Your task to perform on an android device: open app "NewsBreak: Local News & Alerts" (install if not already installed) and go to login screen Image 0: 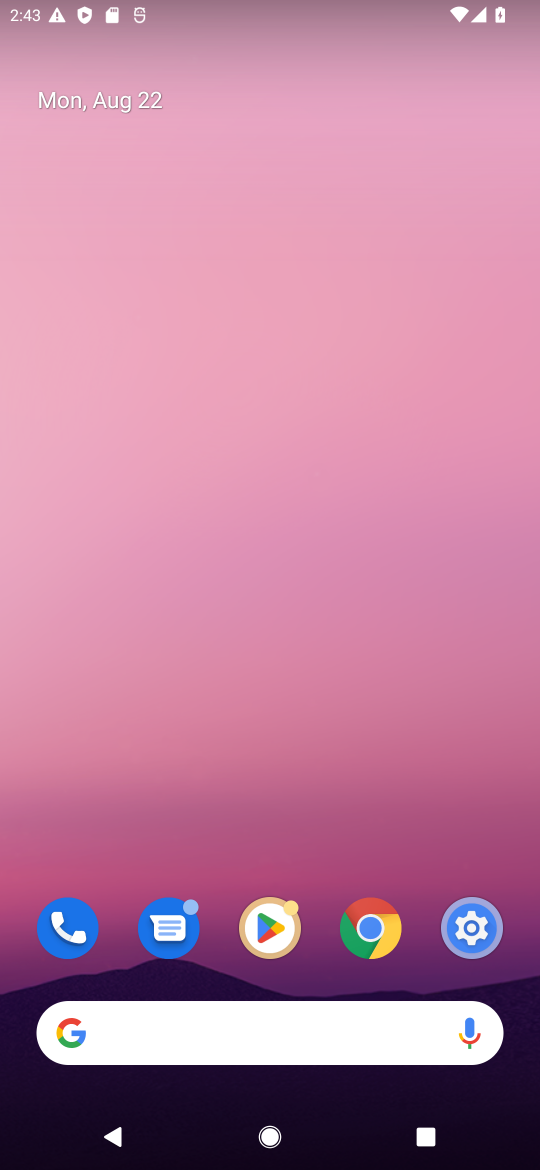
Step 0: click (288, 929)
Your task to perform on an android device: open app "NewsBreak: Local News & Alerts" (install if not already installed) and go to login screen Image 1: 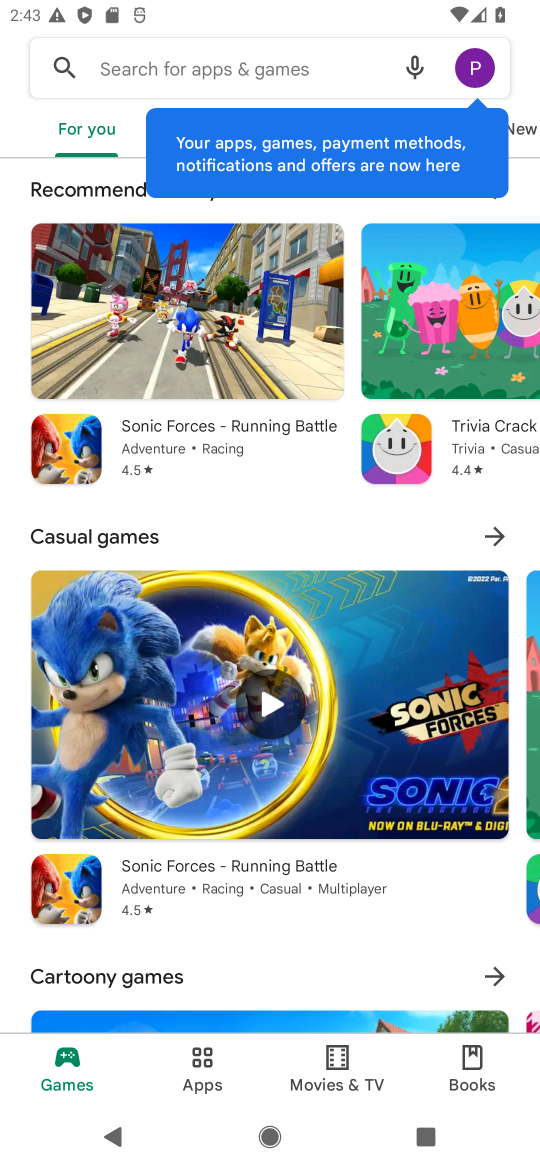
Step 1: click (223, 72)
Your task to perform on an android device: open app "NewsBreak: Local News & Alerts" (install if not already installed) and go to login screen Image 2: 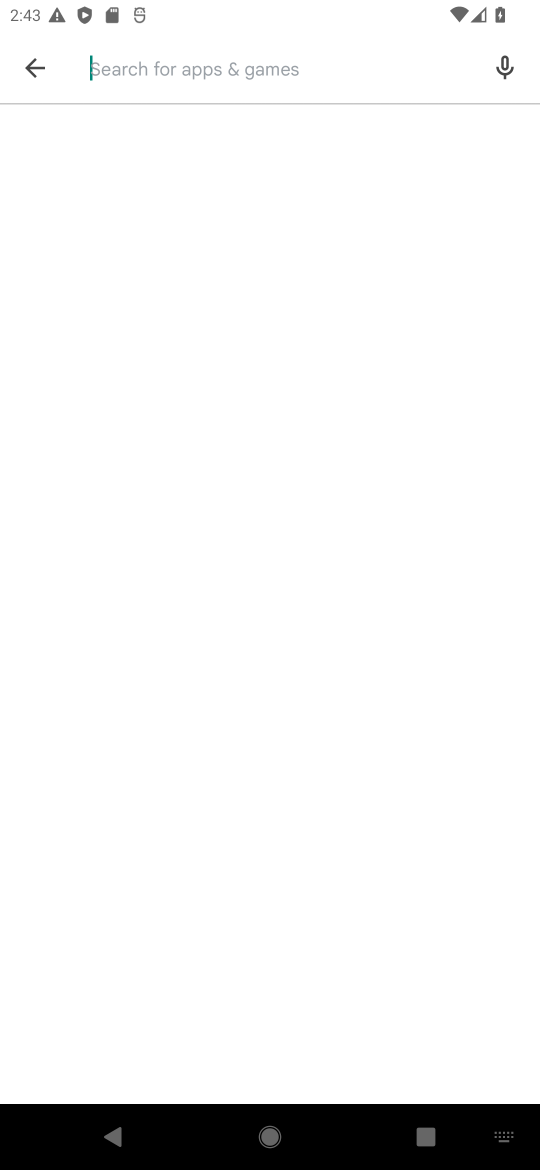
Step 2: type "newsbreak"
Your task to perform on an android device: open app "NewsBreak: Local News & Alerts" (install if not already installed) and go to login screen Image 3: 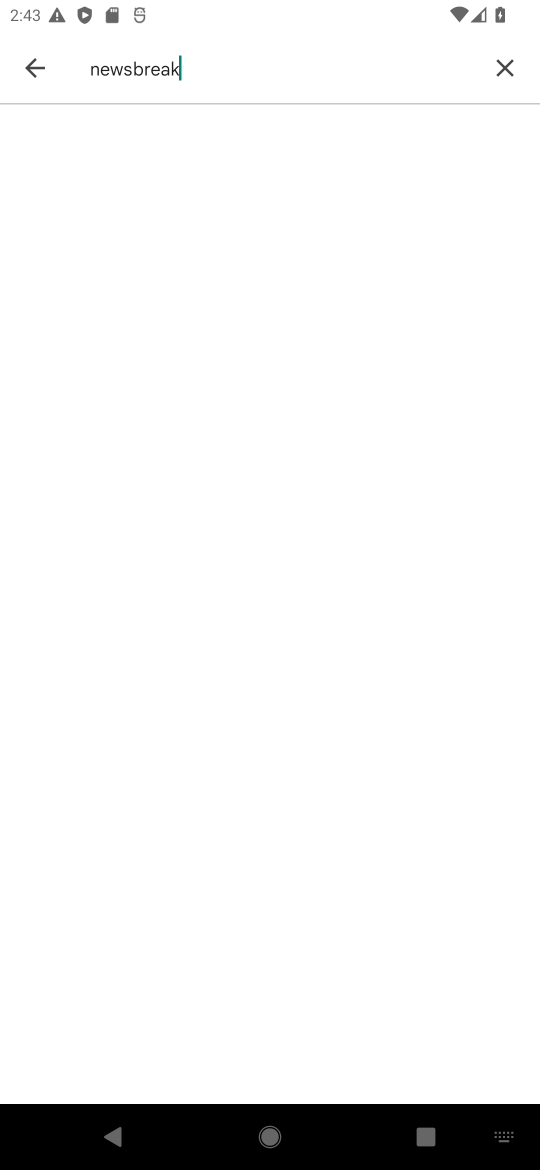
Step 3: click (149, 190)
Your task to perform on an android device: open app "NewsBreak: Local News & Alerts" (install if not already installed) and go to login screen Image 4: 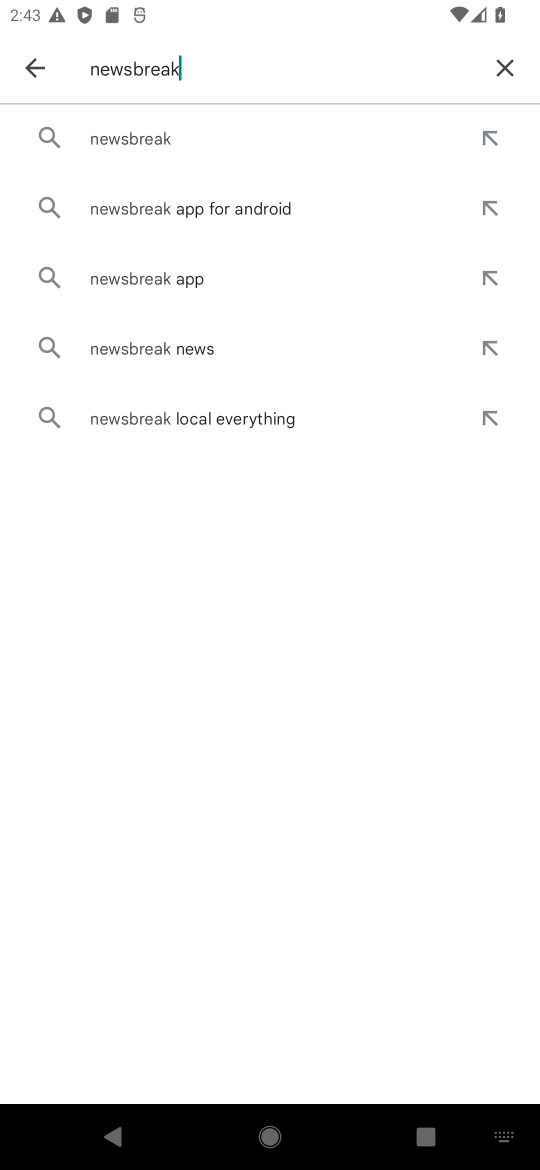
Step 4: drag from (154, 174) to (165, 966)
Your task to perform on an android device: open app "NewsBreak: Local News & Alerts" (install if not already installed) and go to login screen Image 5: 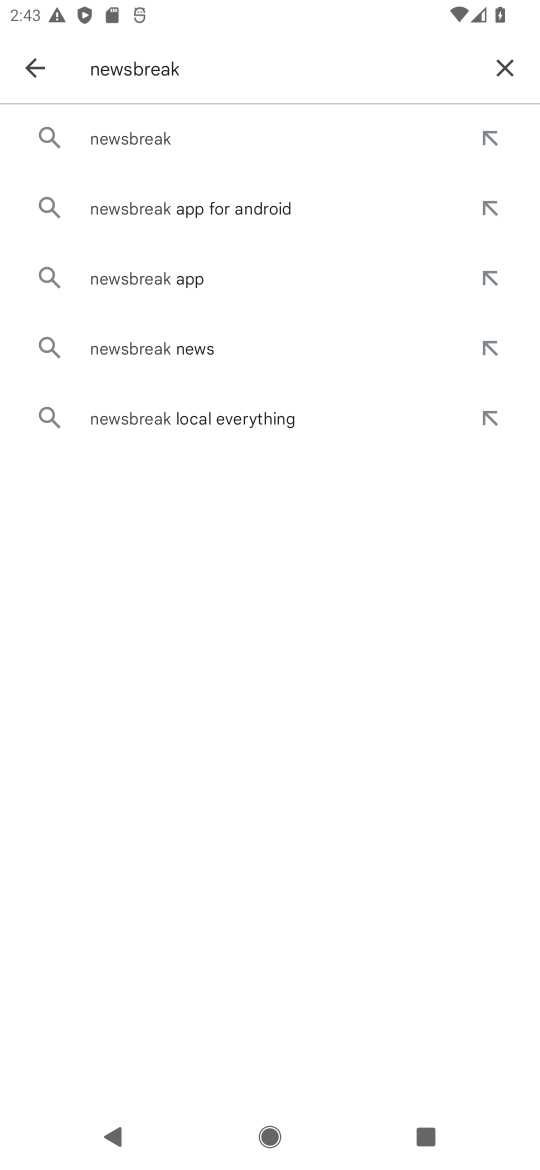
Step 5: click (129, 149)
Your task to perform on an android device: open app "NewsBreak: Local News & Alerts" (install if not already installed) and go to login screen Image 6: 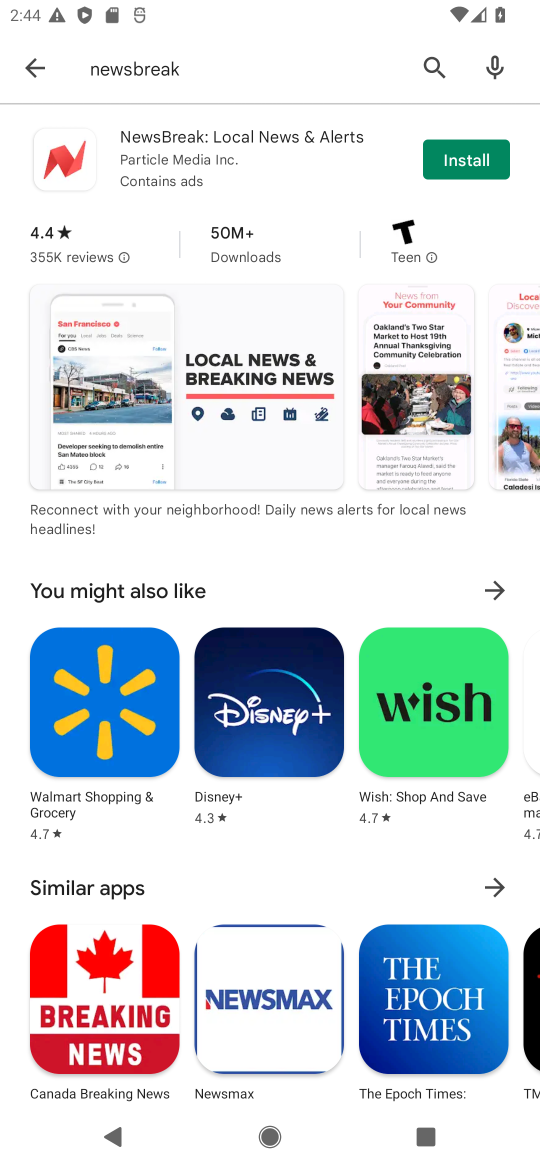
Step 6: click (480, 164)
Your task to perform on an android device: open app "NewsBreak: Local News & Alerts" (install if not already installed) and go to login screen Image 7: 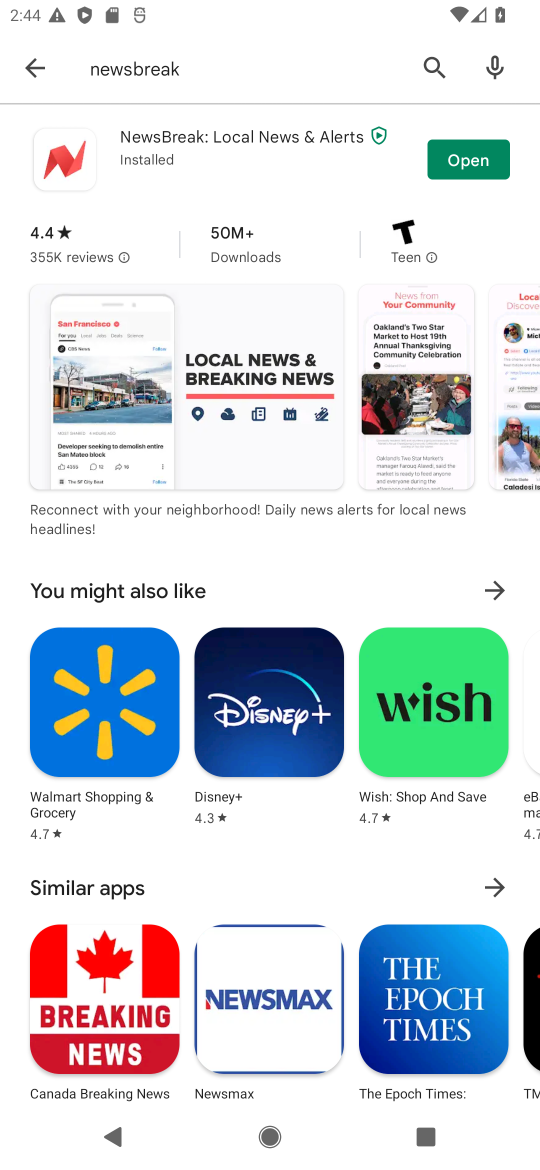
Step 7: click (475, 157)
Your task to perform on an android device: open app "NewsBreak: Local News & Alerts" (install if not already installed) and go to login screen Image 8: 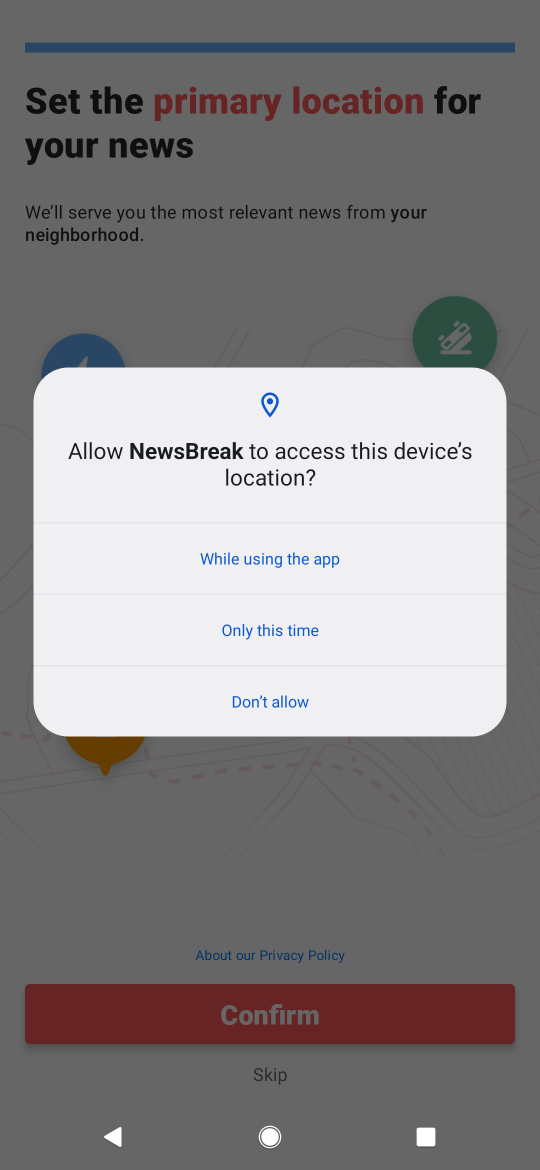
Step 8: click (321, 566)
Your task to perform on an android device: open app "NewsBreak: Local News & Alerts" (install if not already installed) and go to login screen Image 9: 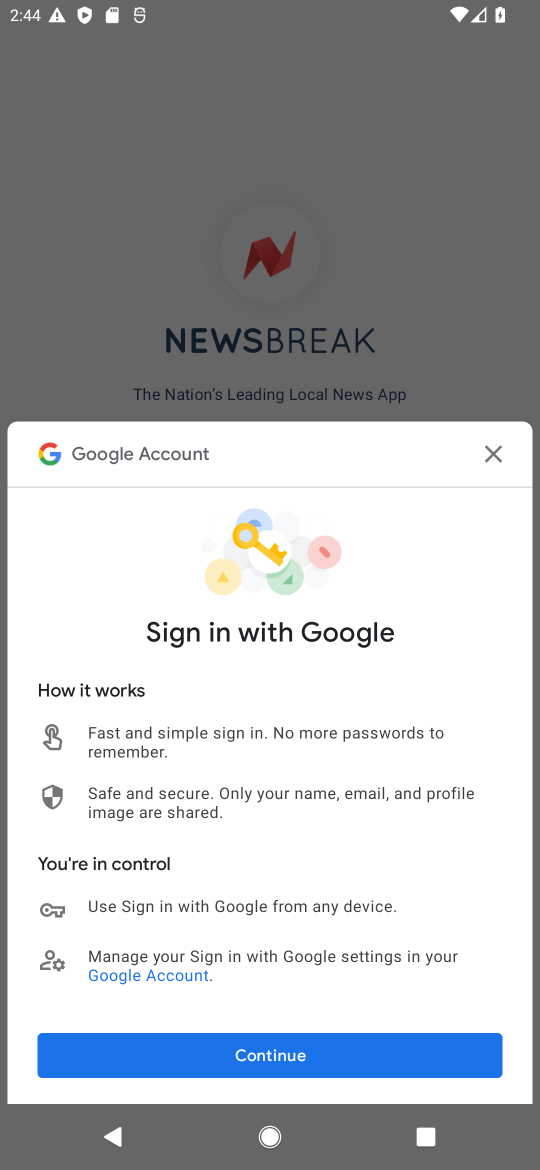
Step 9: click (279, 1056)
Your task to perform on an android device: open app "NewsBreak: Local News & Alerts" (install if not already installed) and go to login screen Image 10: 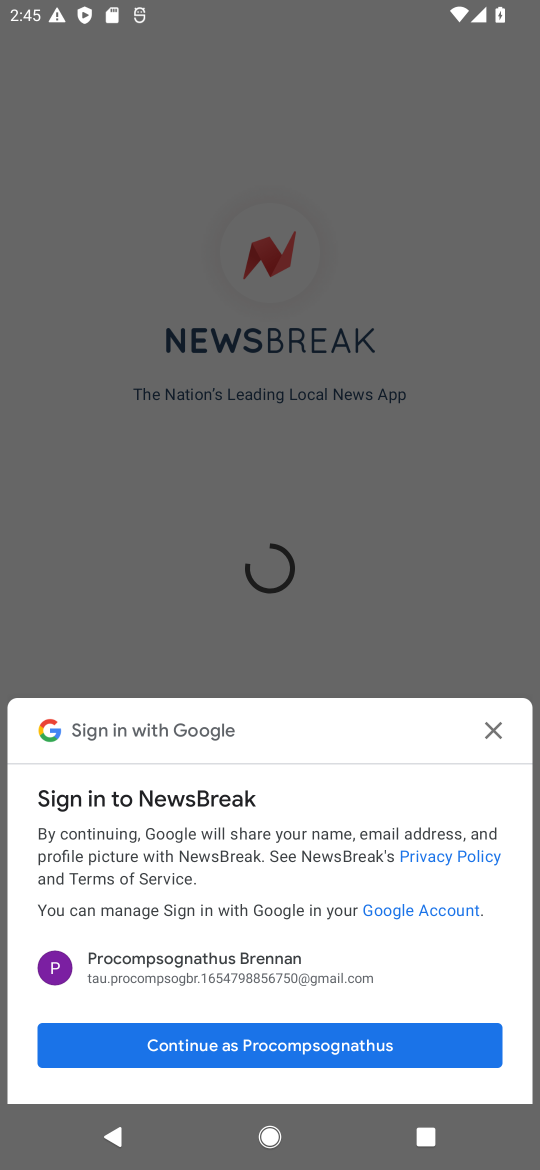
Step 10: click (308, 1054)
Your task to perform on an android device: open app "NewsBreak: Local News & Alerts" (install if not already installed) and go to login screen Image 11: 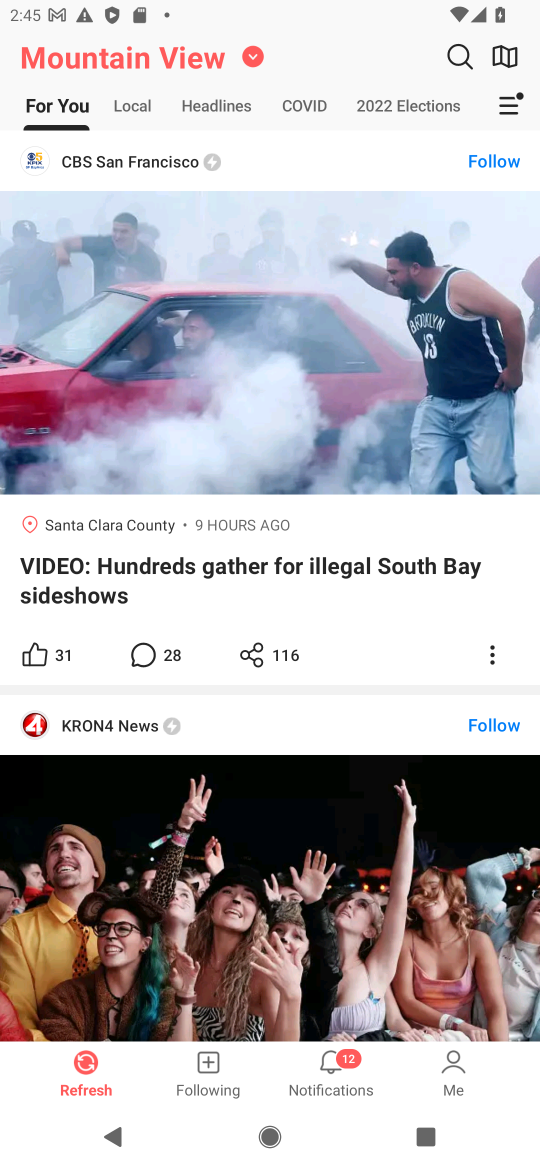
Step 11: click (454, 1066)
Your task to perform on an android device: open app "NewsBreak: Local News & Alerts" (install if not already installed) and go to login screen Image 12: 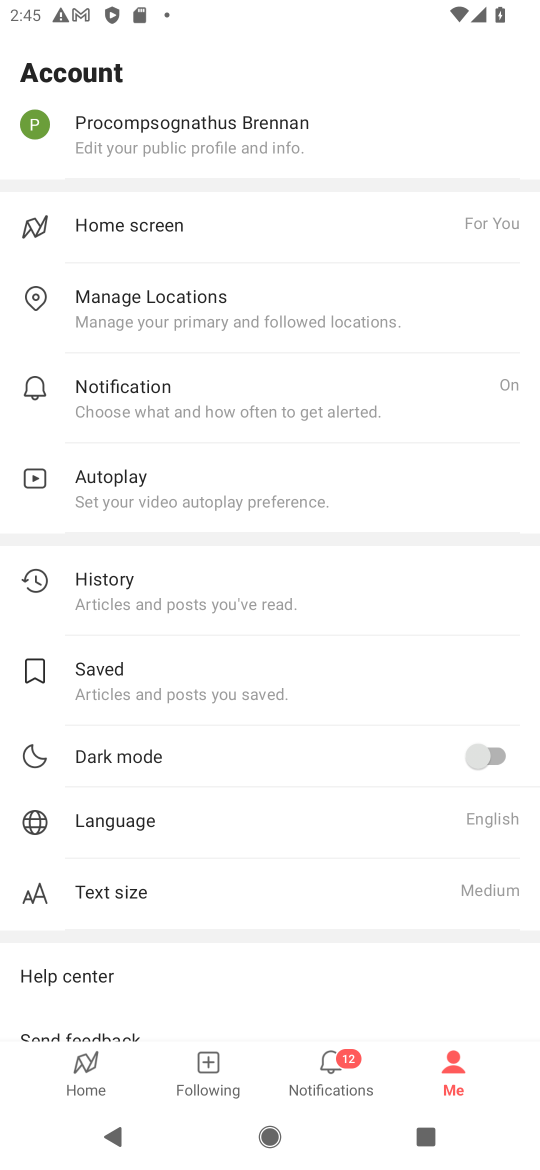
Step 12: click (214, 129)
Your task to perform on an android device: open app "NewsBreak: Local News & Alerts" (install if not already installed) and go to login screen Image 13: 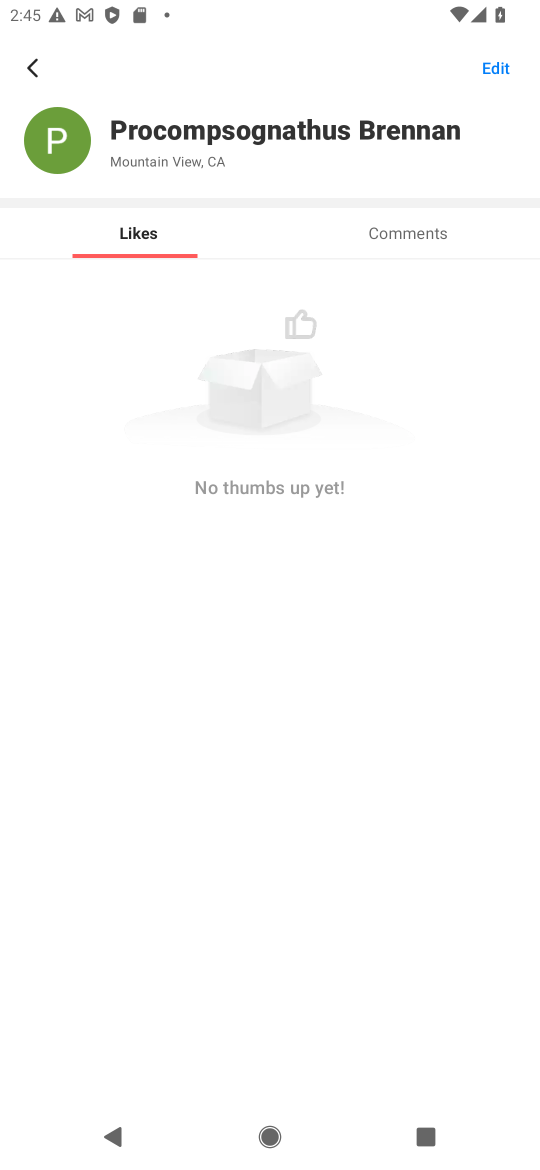
Step 13: click (259, 138)
Your task to perform on an android device: open app "NewsBreak: Local News & Alerts" (install if not already installed) and go to login screen Image 14: 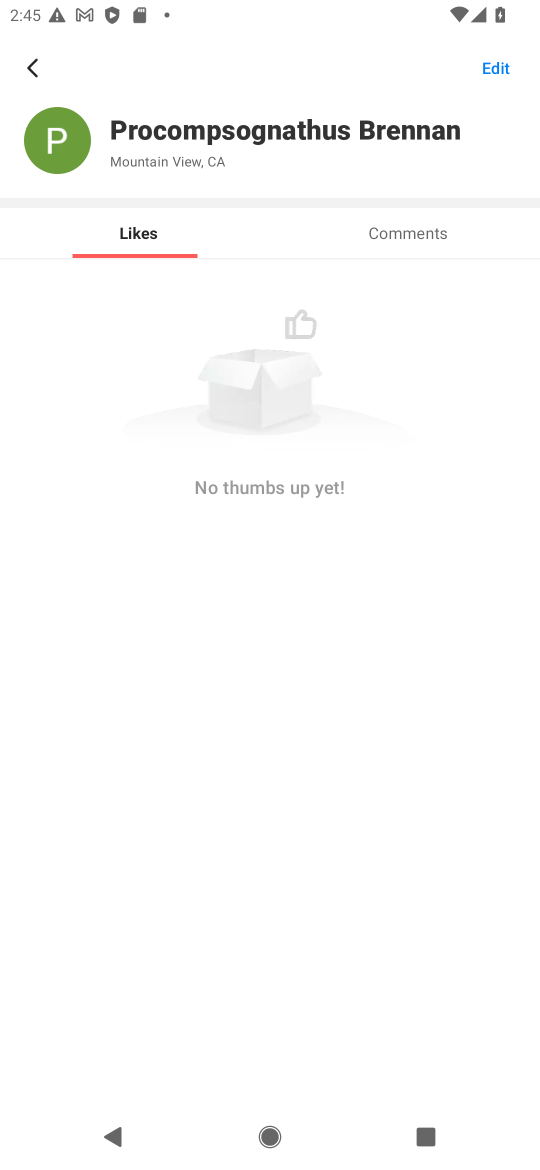
Step 14: click (480, 65)
Your task to perform on an android device: open app "NewsBreak: Local News & Alerts" (install if not already installed) and go to login screen Image 15: 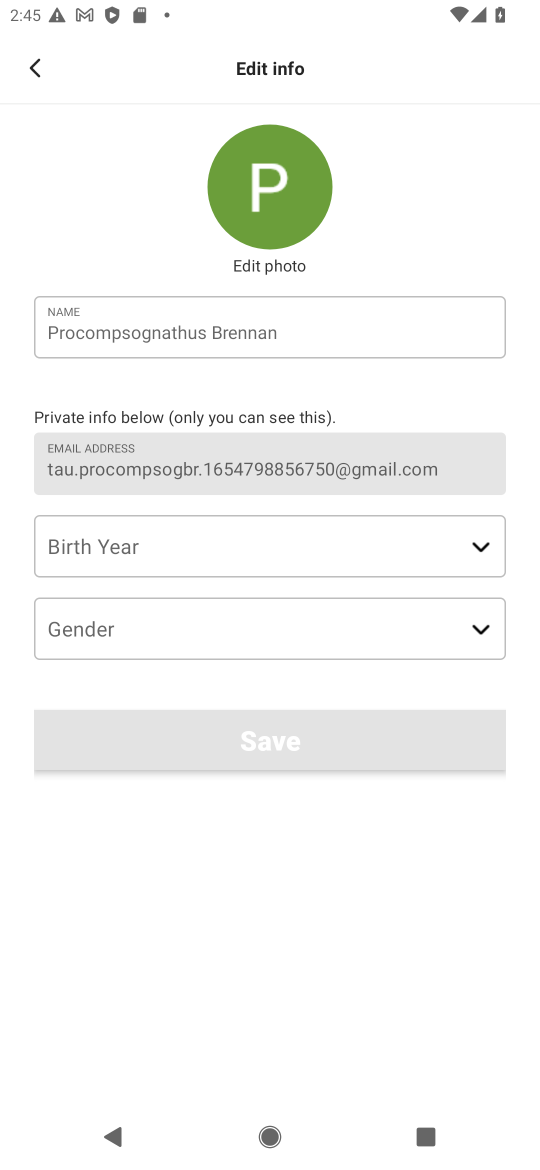
Step 15: click (26, 43)
Your task to perform on an android device: open app "NewsBreak: Local News & Alerts" (install if not already installed) and go to login screen Image 16: 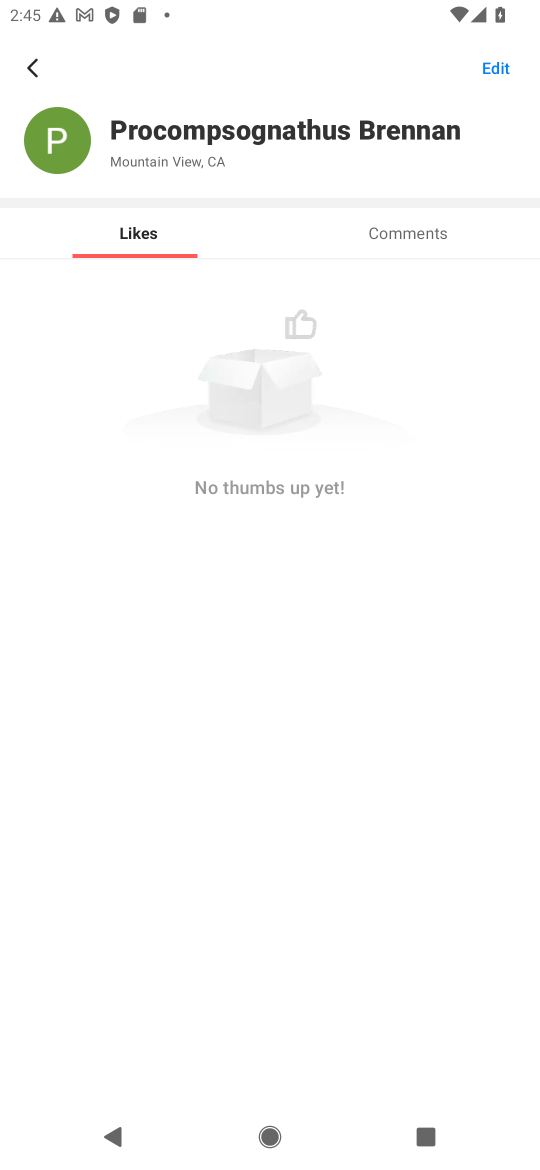
Step 16: click (28, 72)
Your task to perform on an android device: open app "NewsBreak: Local News & Alerts" (install if not already installed) and go to login screen Image 17: 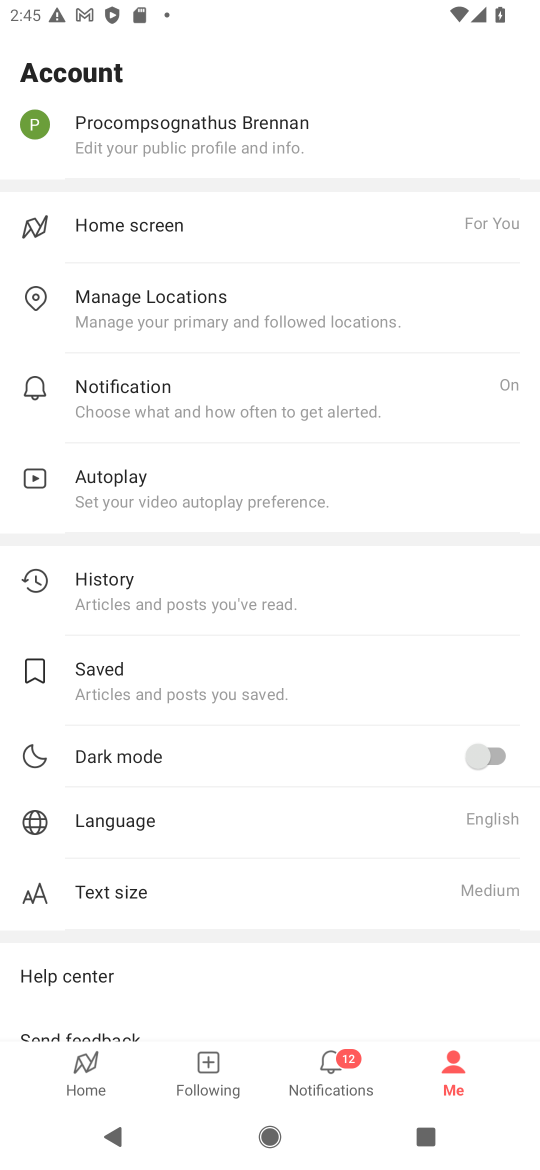
Step 17: task complete